Your task to perform on an android device: Open Android settings Image 0: 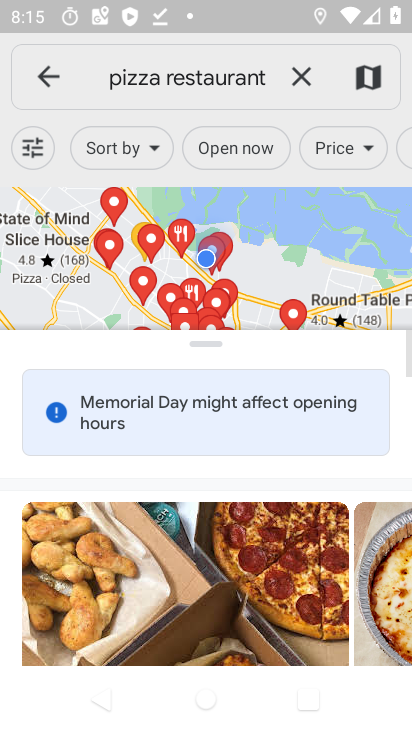
Step 0: press home button
Your task to perform on an android device: Open Android settings Image 1: 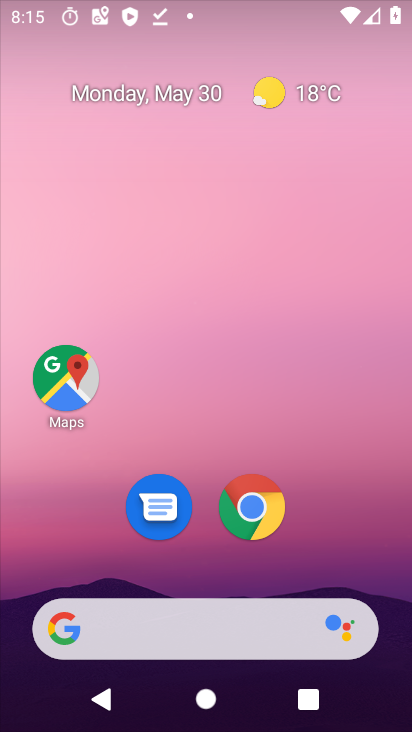
Step 1: drag from (339, 544) to (318, 184)
Your task to perform on an android device: Open Android settings Image 2: 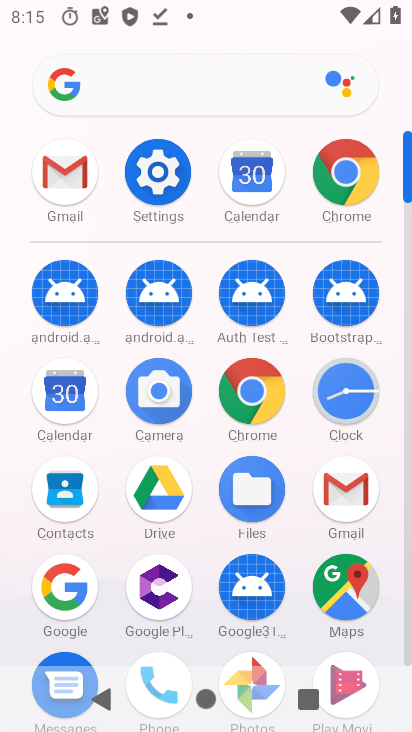
Step 2: click (158, 197)
Your task to perform on an android device: Open Android settings Image 3: 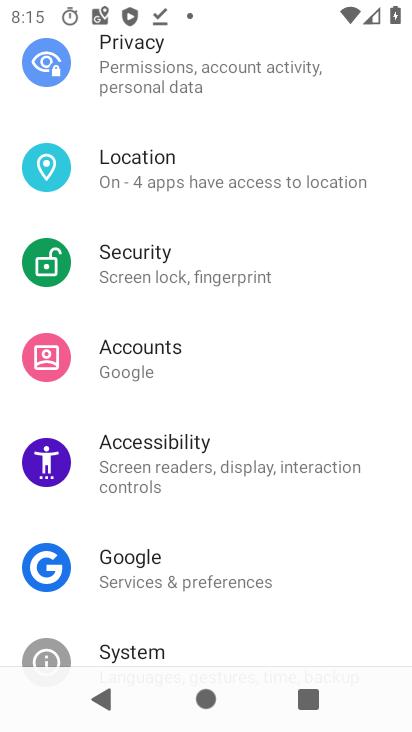
Step 3: drag from (241, 475) to (259, 264)
Your task to perform on an android device: Open Android settings Image 4: 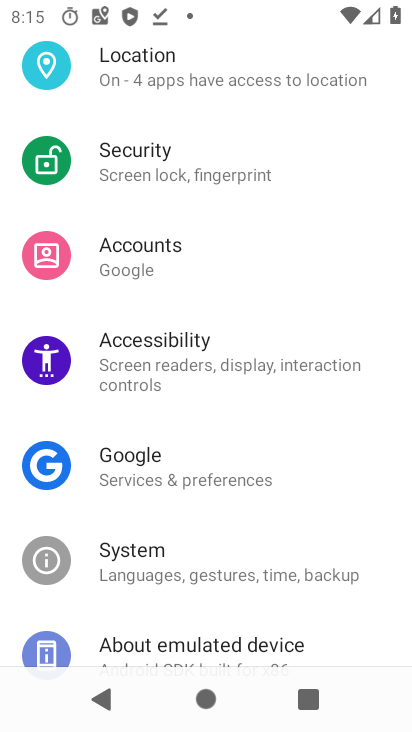
Step 4: drag from (301, 568) to (304, 276)
Your task to perform on an android device: Open Android settings Image 5: 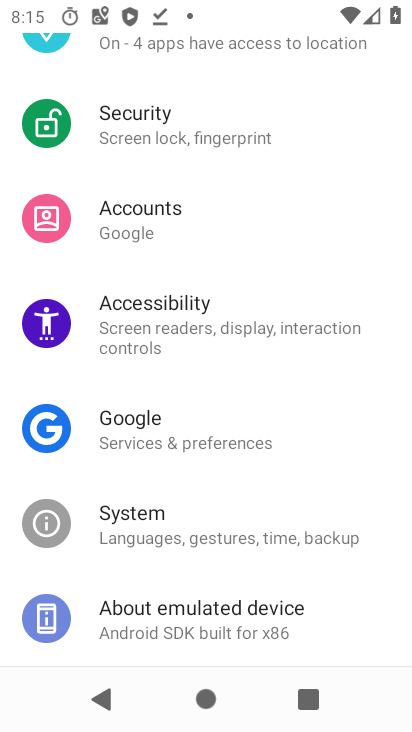
Step 5: click (269, 625)
Your task to perform on an android device: Open Android settings Image 6: 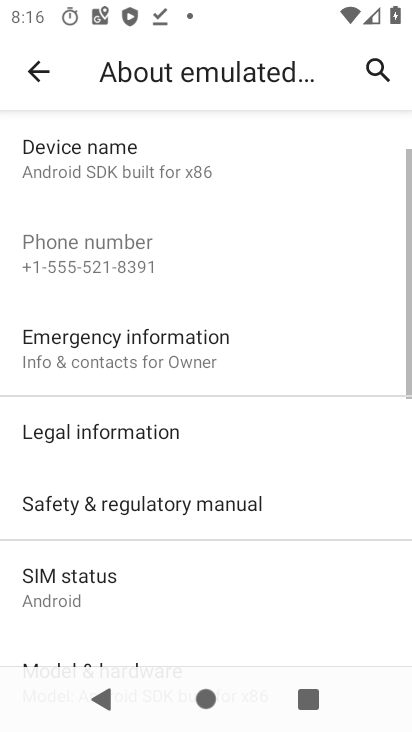
Step 6: drag from (233, 538) to (224, 266)
Your task to perform on an android device: Open Android settings Image 7: 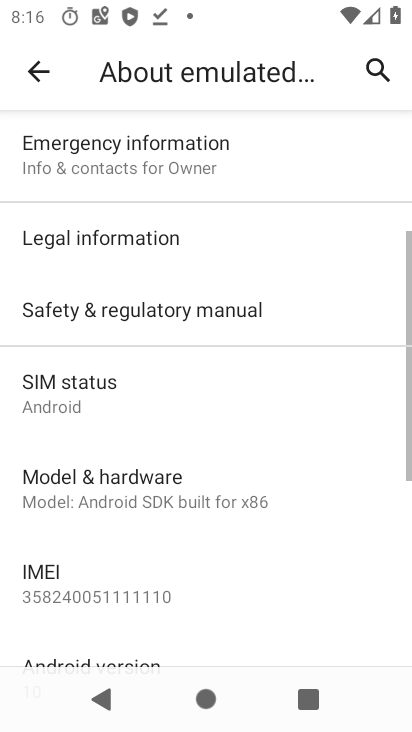
Step 7: drag from (187, 525) to (204, 330)
Your task to perform on an android device: Open Android settings Image 8: 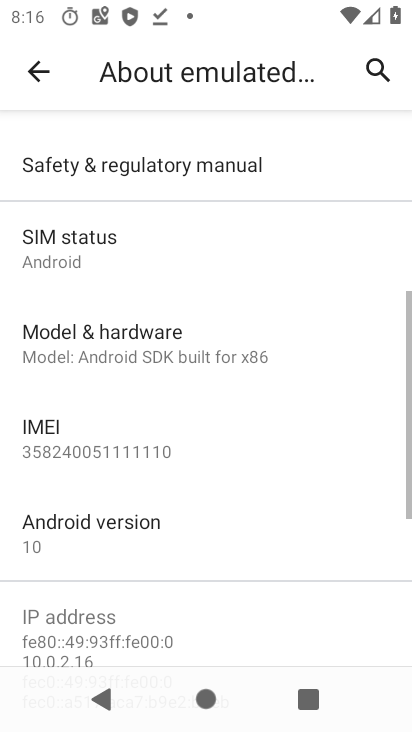
Step 8: click (120, 518)
Your task to perform on an android device: Open Android settings Image 9: 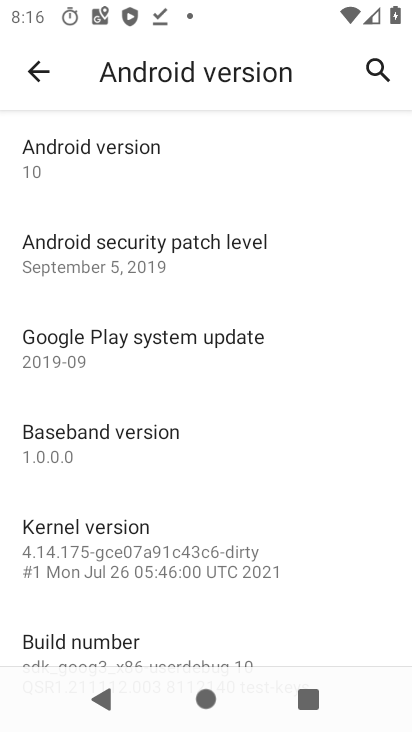
Step 9: task complete